Your task to perform on an android device: turn notification dots off Image 0: 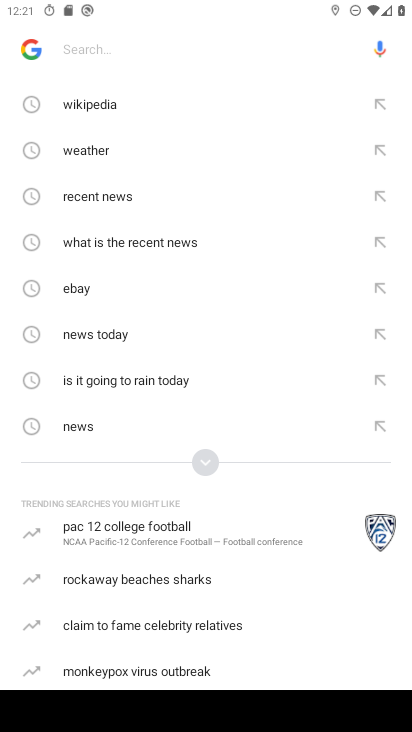
Step 0: press home button
Your task to perform on an android device: turn notification dots off Image 1: 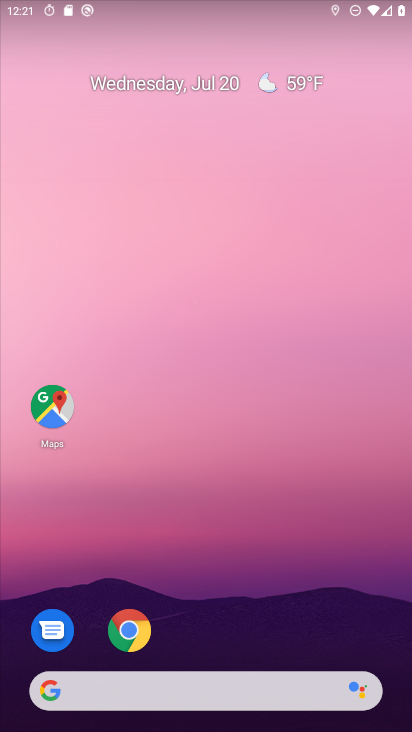
Step 1: drag from (258, 420) to (356, 7)
Your task to perform on an android device: turn notification dots off Image 2: 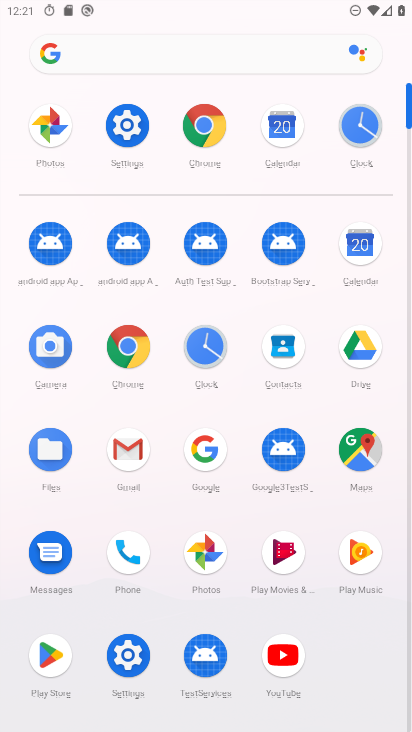
Step 2: click (121, 129)
Your task to perform on an android device: turn notification dots off Image 3: 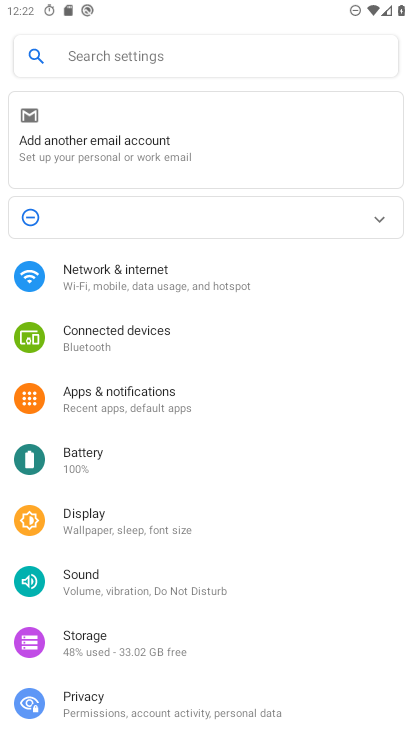
Step 3: click (123, 400)
Your task to perform on an android device: turn notification dots off Image 4: 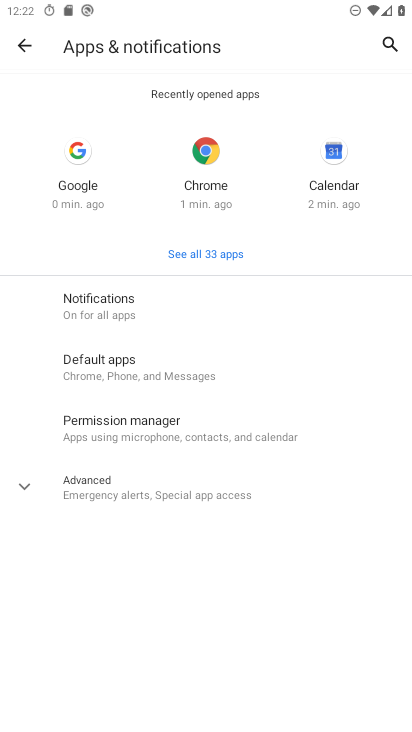
Step 4: click (141, 302)
Your task to perform on an android device: turn notification dots off Image 5: 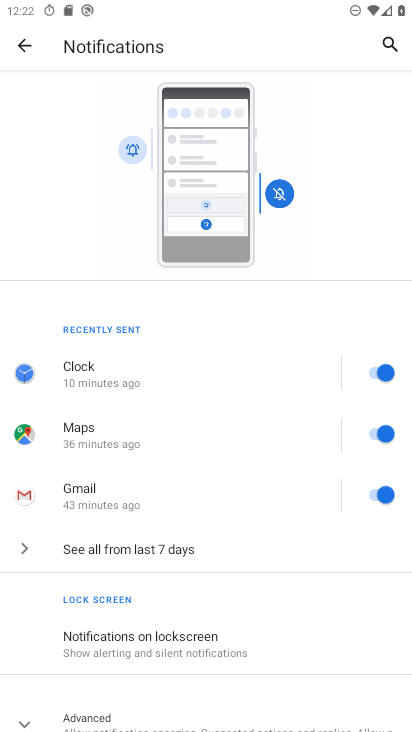
Step 5: drag from (197, 707) to (227, 252)
Your task to perform on an android device: turn notification dots off Image 6: 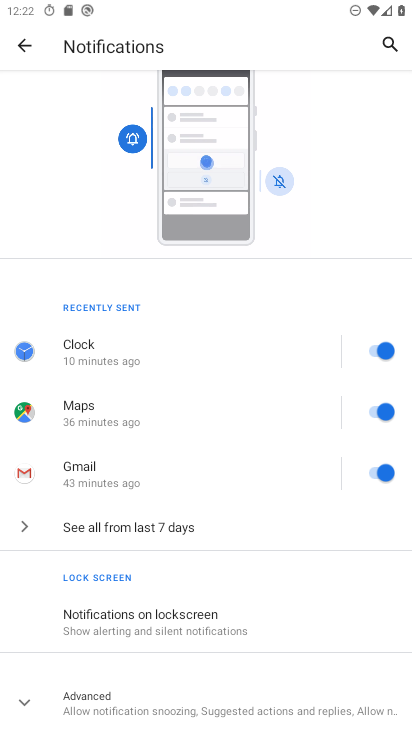
Step 6: click (124, 703)
Your task to perform on an android device: turn notification dots off Image 7: 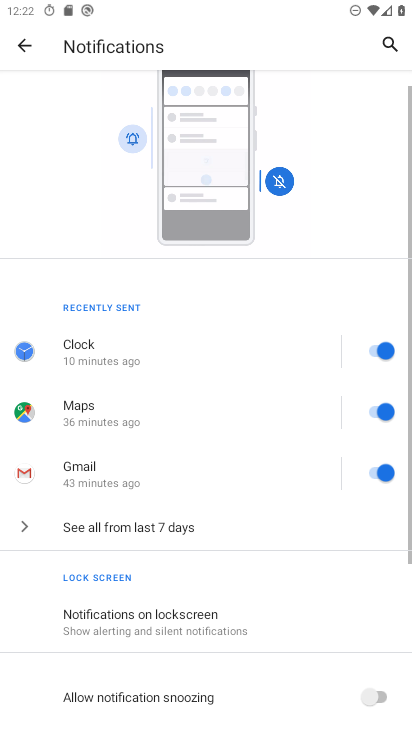
Step 7: drag from (168, 675) to (132, 273)
Your task to perform on an android device: turn notification dots off Image 8: 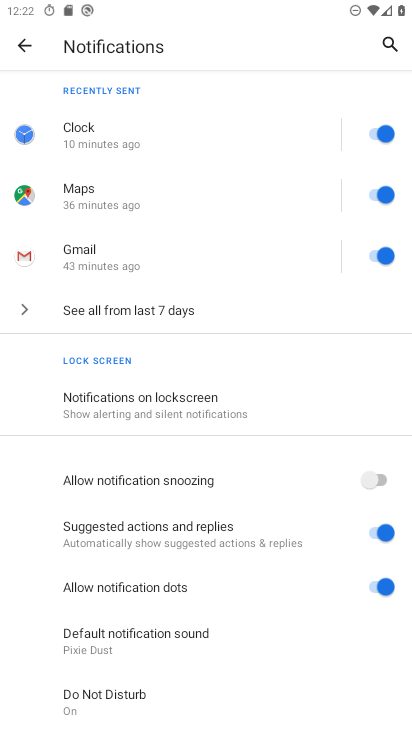
Step 8: click (383, 584)
Your task to perform on an android device: turn notification dots off Image 9: 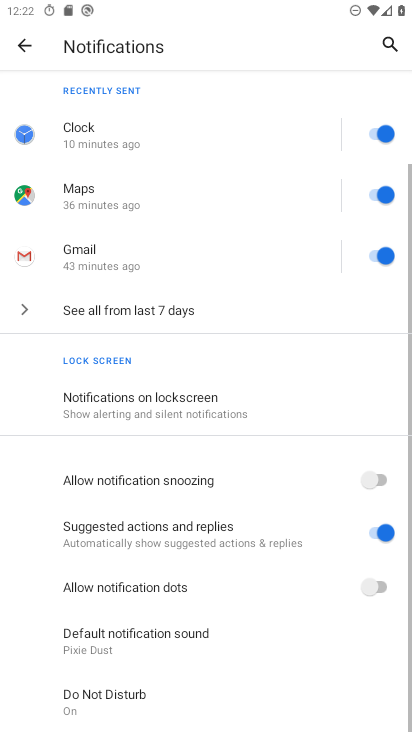
Step 9: task complete